Your task to perform on an android device: toggle show notifications on the lock screen Image 0: 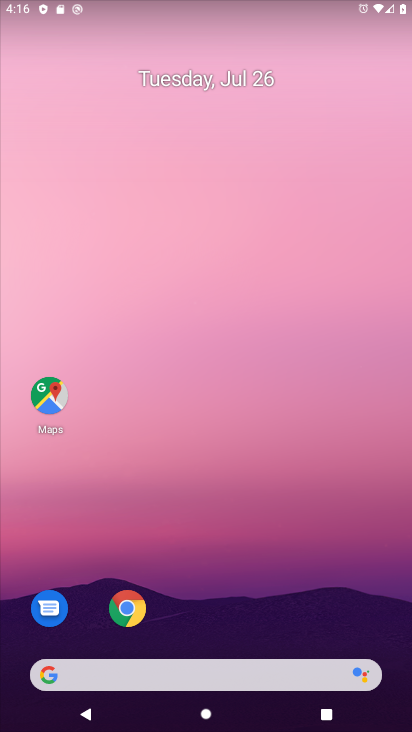
Step 0: drag from (400, 703) to (355, 80)
Your task to perform on an android device: toggle show notifications on the lock screen Image 1: 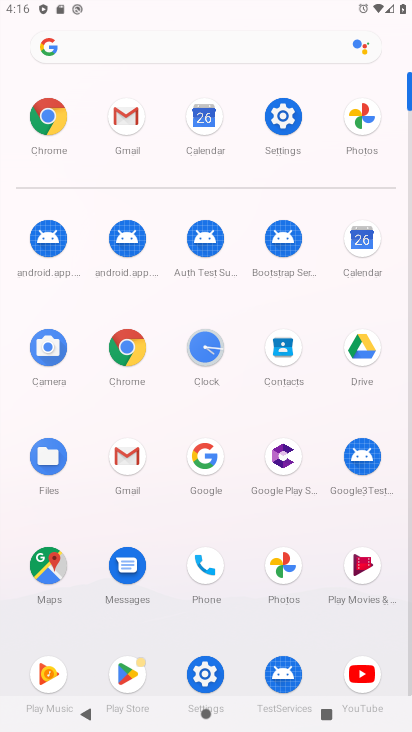
Step 1: click (280, 120)
Your task to perform on an android device: toggle show notifications on the lock screen Image 2: 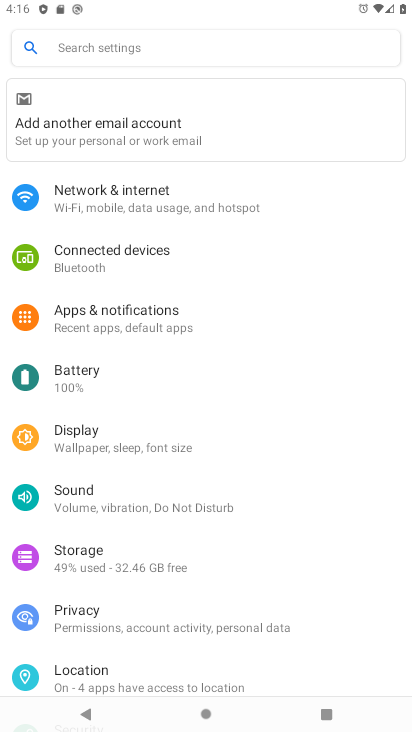
Step 2: click (99, 314)
Your task to perform on an android device: toggle show notifications on the lock screen Image 3: 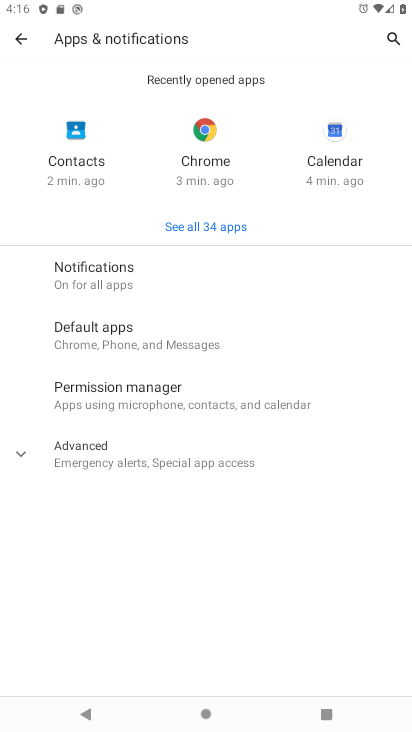
Step 3: click (30, 455)
Your task to perform on an android device: toggle show notifications on the lock screen Image 4: 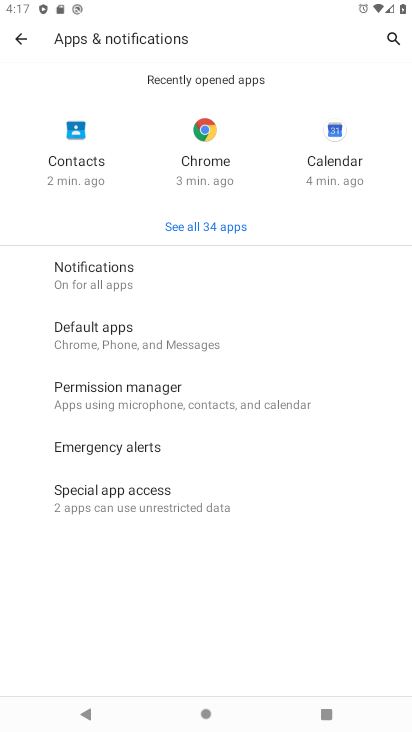
Step 4: click (106, 275)
Your task to perform on an android device: toggle show notifications on the lock screen Image 5: 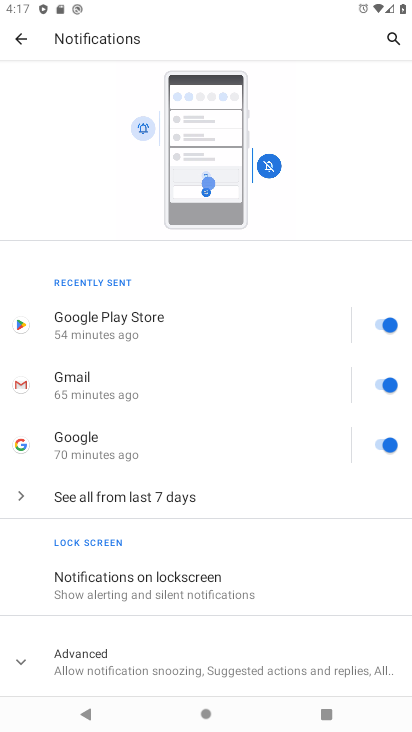
Step 5: click (158, 586)
Your task to perform on an android device: toggle show notifications on the lock screen Image 6: 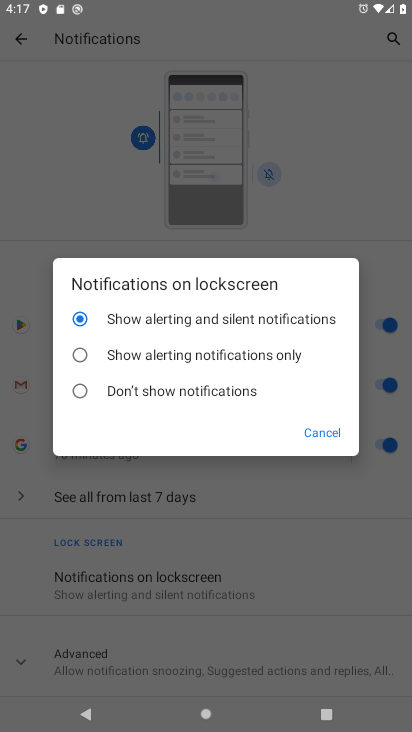
Step 6: click (76, 354)
Your task to perform on an android device: toggle show notifications on the lock screen Image 7: 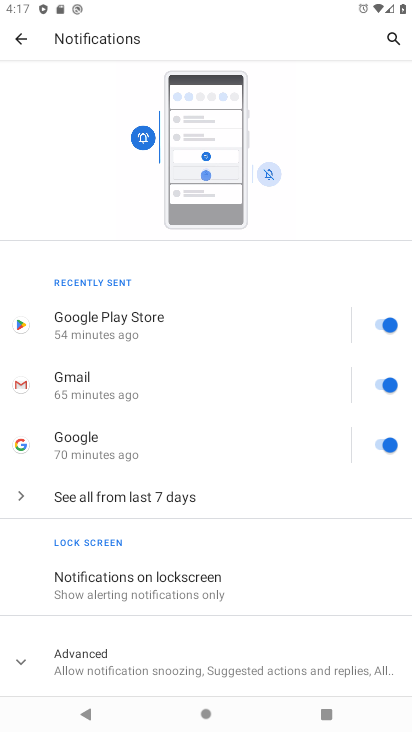
Step 7: task complete